Your task to perform on an android device: Open settings Image 0: 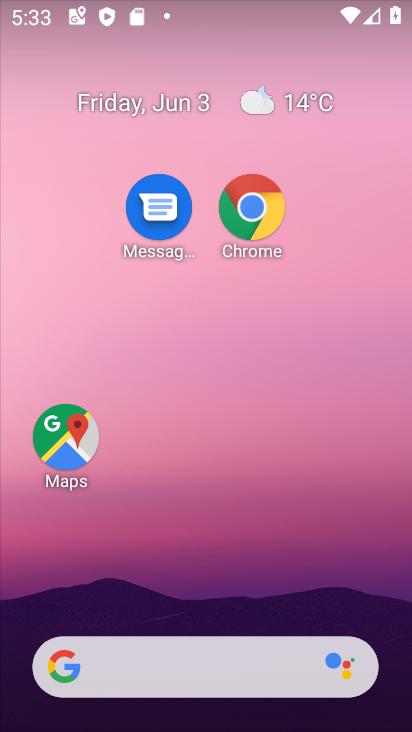
Step 0: drag from (217, 597) to (236, 15)
Your task to perform on an android device: Open settings Image 1: 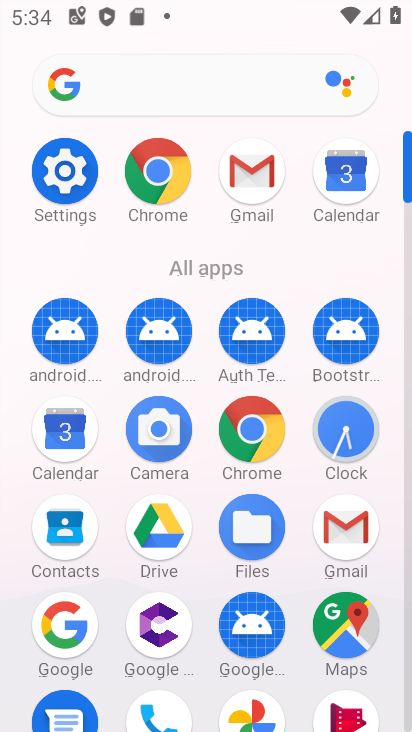
Step 1: click (62, 193)
Your task to perform on an android device: Open settings Image 2: 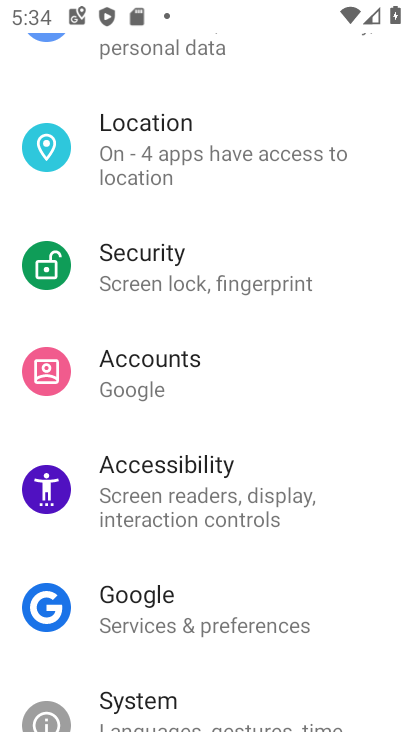
Step 2: task complete